Your task to perform on an android device: toggle wifi Image 0: 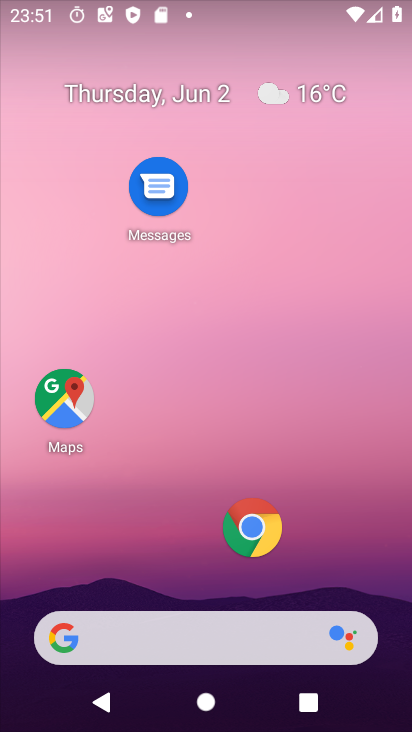
Step 0: press home button
Your task to perform on an android device: toggle wifi Image 1: 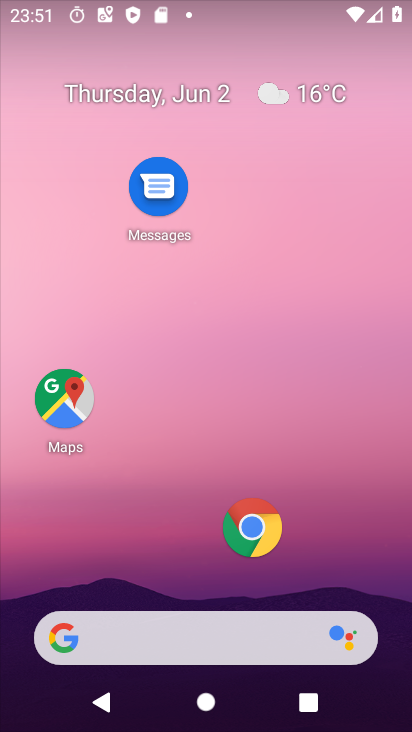
Step 1: drag from (225, 1) to (236, 506)
Your task to perform on an android device: toggle wifi Image 2: 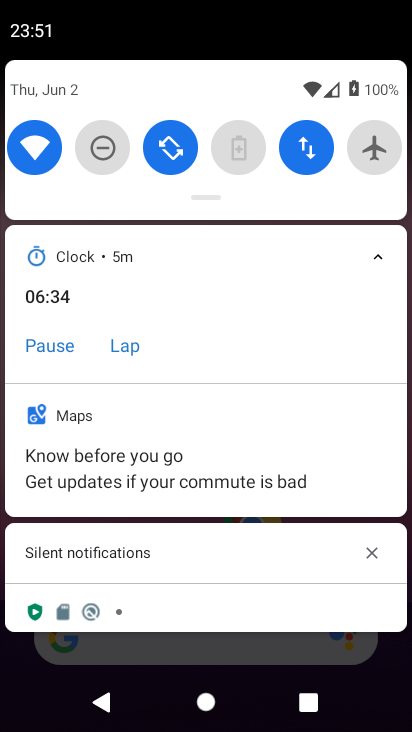
Step 2: drag from (246, 521) to (272, 258)
Your task to perform on an android device: toggle wifi Image 3: 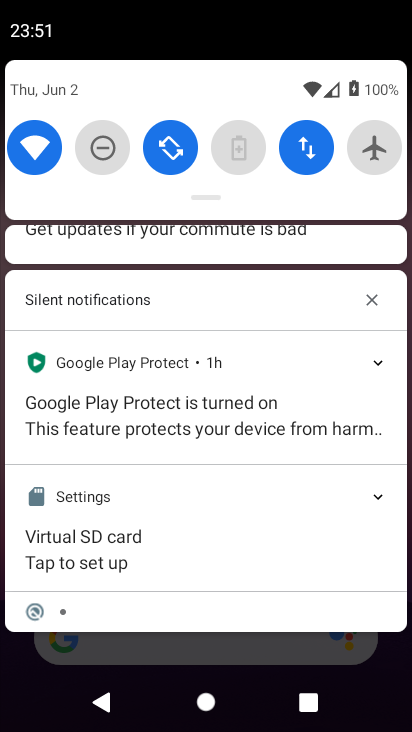
Step 3: drag from (204, 550) to (202, 257)
Your task to perform on an android device: toggle wifi Image 4: 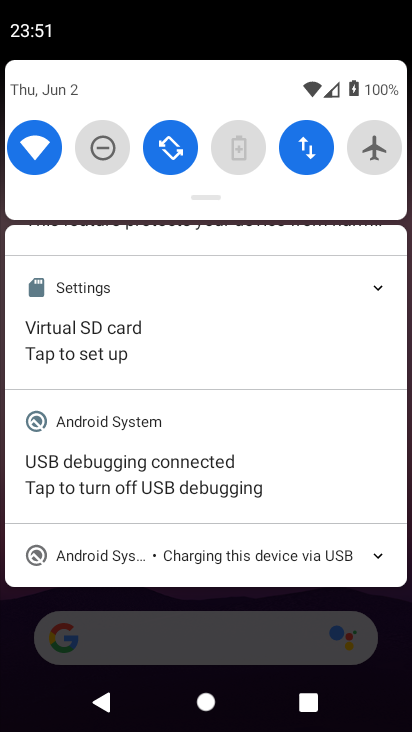
Step 4: drag from (236, 240) to (284, 591)
Your task to perform on an android device: toggle wifi Image 5: 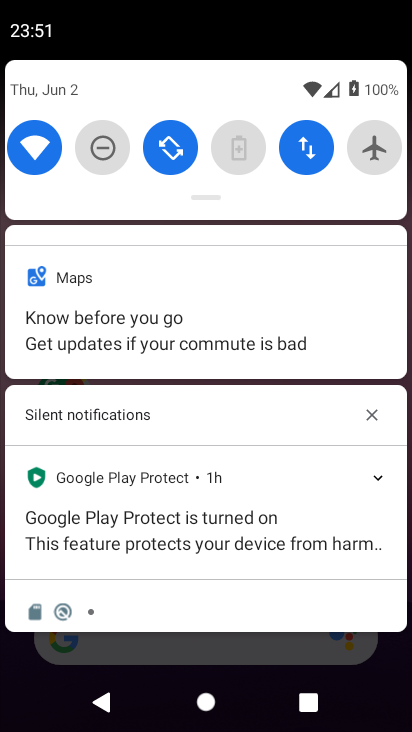
Step 5: drag from (202, 270) to (236, 500)
Your task to perform on an android device: toggle wifi Image 6: 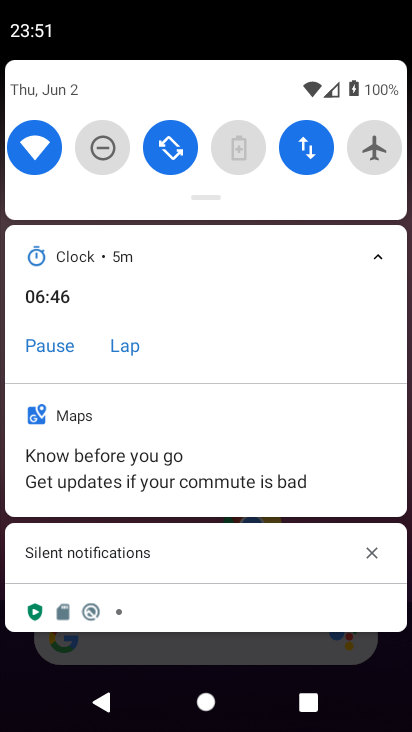
Step 6: click (30, 152)
Your task to perform on an android device: toggle wifi Image 7: 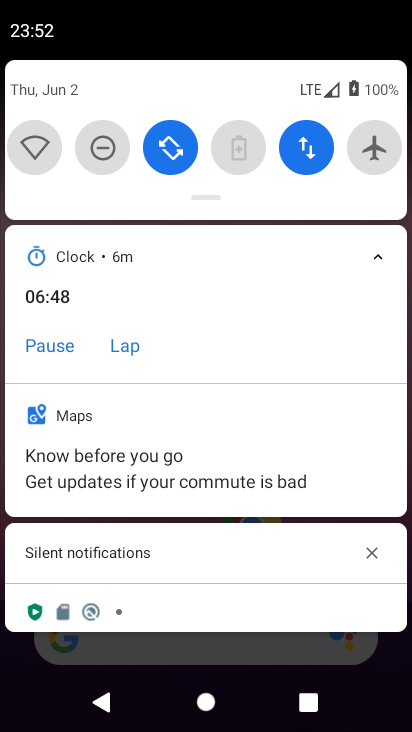
Step 7: task complete